Your task to perform on an android device: Open the calendar and show me this week's events Image 0: 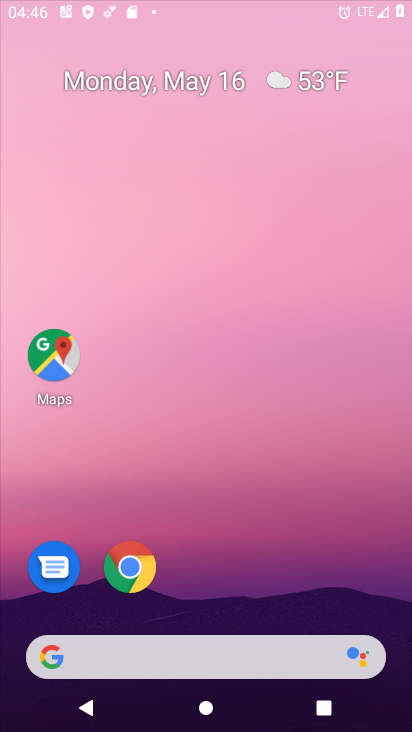
Step 0: drag from (359, 678) to (289, 3)
Your task to perform on an android device: Open the calendar and show me this week's events Image 1: 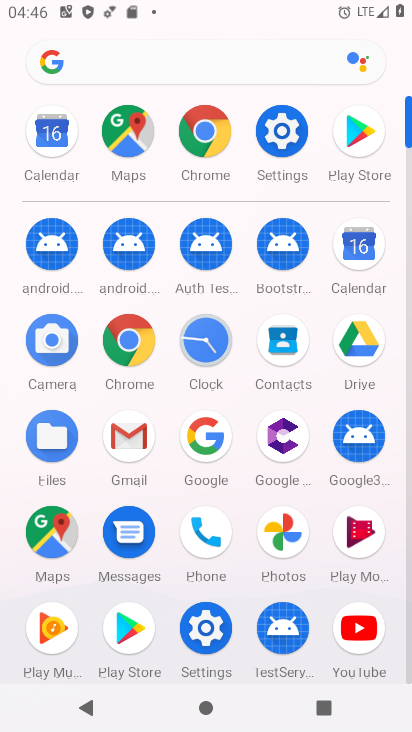
Step 1: click (359, 249)
Your task to perform on an android device: Open the calendar and show me this week's events Image 2: 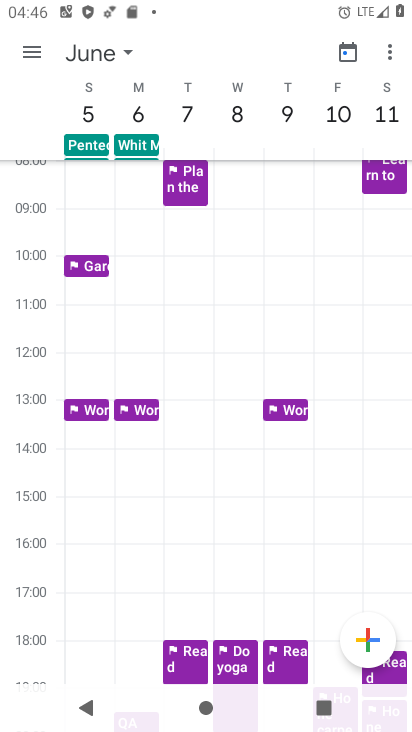
Step 2: click (126, 48)
Your task to perform on an android device: Open the calendar and show me this week's events Image 3: 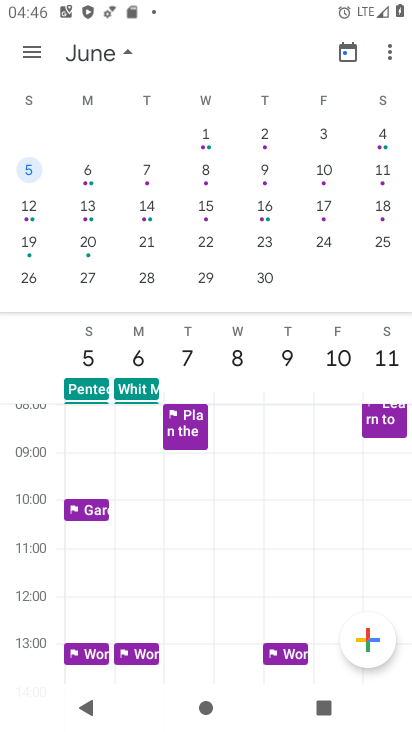
Step 3: drag from (81, 180) to (373, 205)
Your task to perform on an android device: Open the calendar and show me this week's events Image 4: 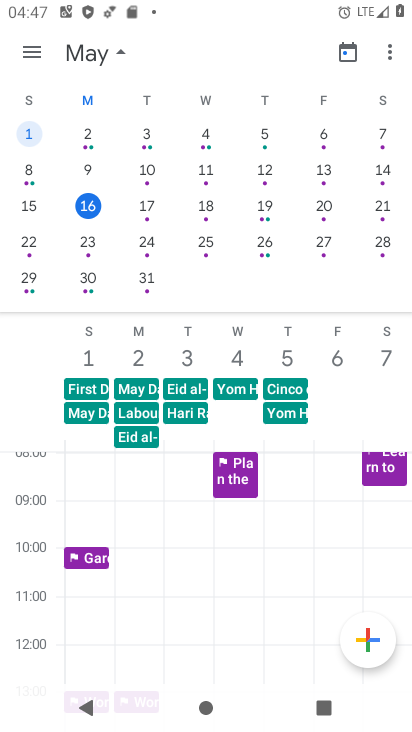
Step 4: click (210, 210)
Your task to perform on an android device: Open the calendar and show me this week's events Image 5: 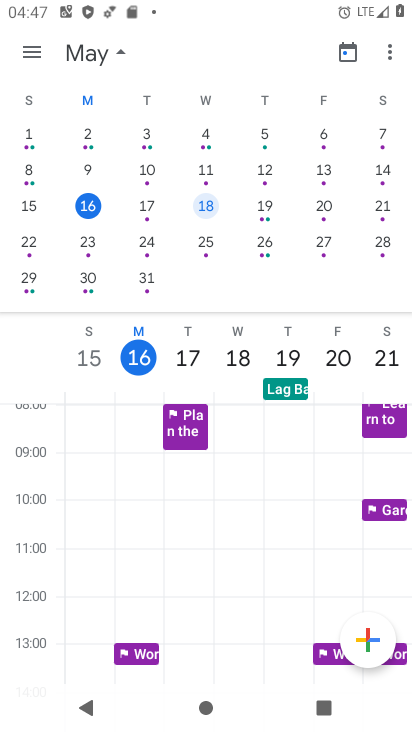
Step 5: task complete